Your task to perform on an android device: What's the weather going to be tomorrow? Image 0: 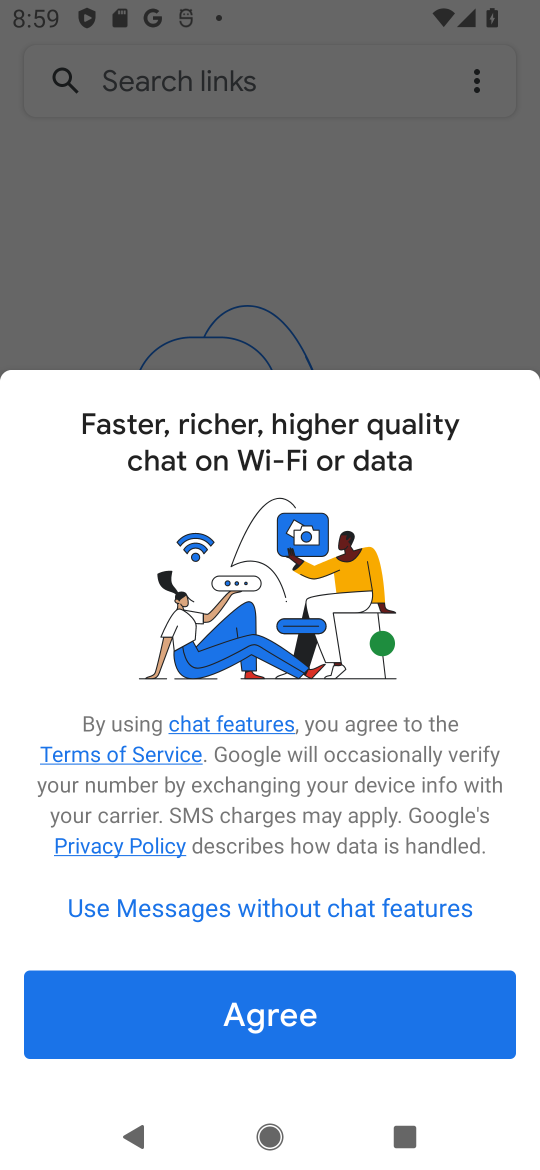
Step 0: press home button
Your task to perform on an android device: What's the weather going to be tomorrow? Image 1: 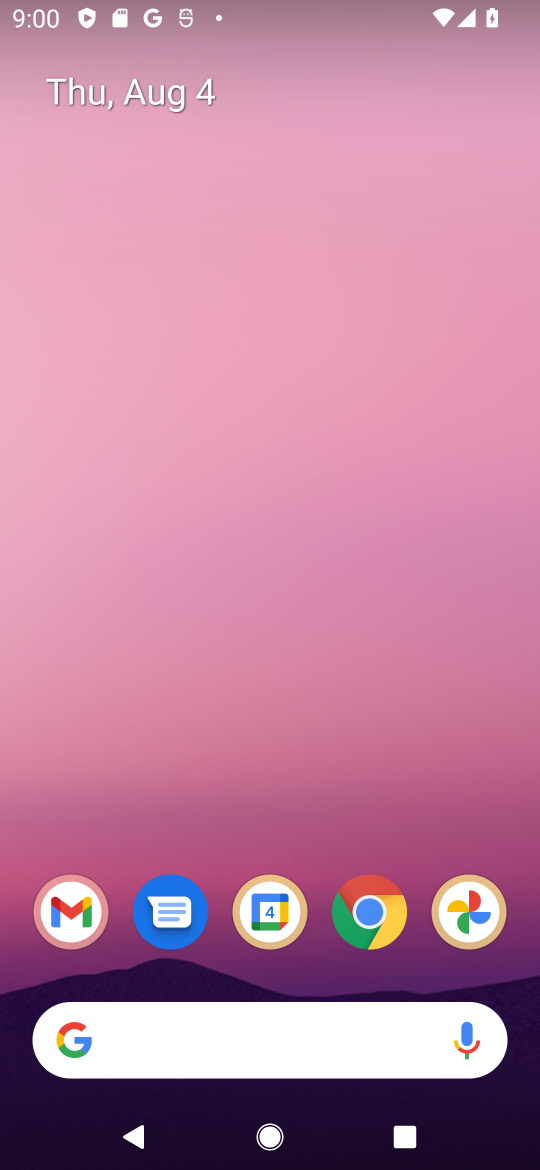
Step 1: click (385, 907)
Your task to perform on an android device: What's the weather going to be tomorrow? Image 2: 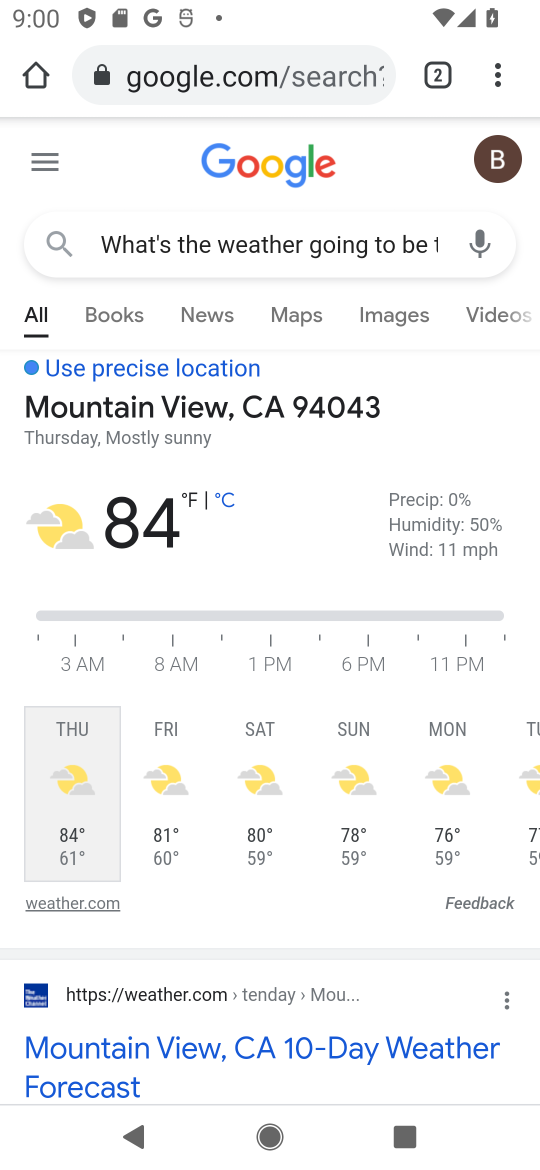
Step 2: click (290, 81)
Your task to perform on an android device: What's the weather going to be tomorrow? Image 3: 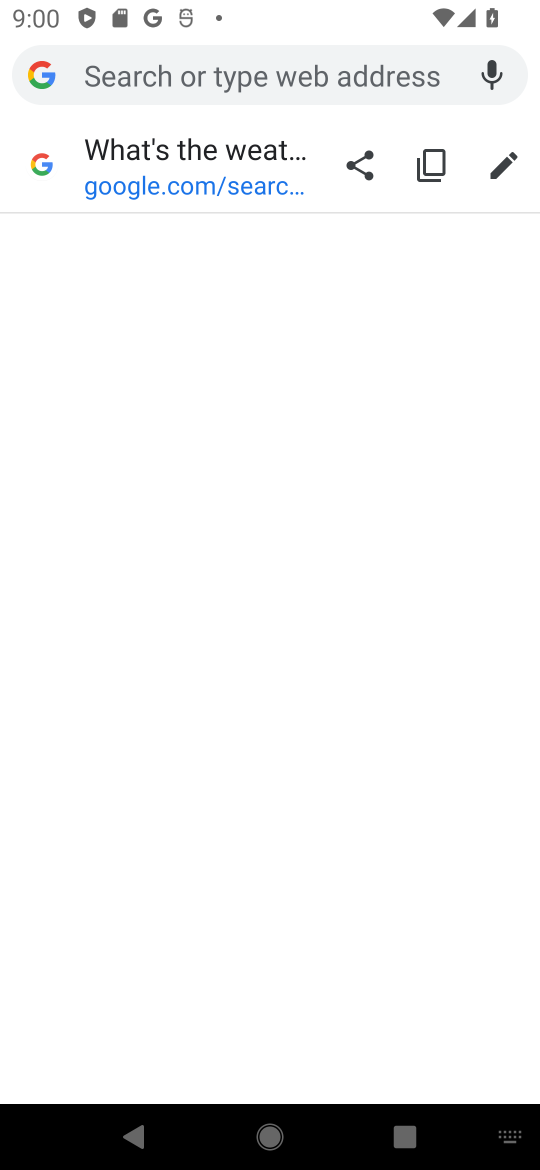
Step 3: type "What's the weather going to be tomorrow?"
Your task to perform on an android device: What's the weather going to be tomorrow? Image 4: 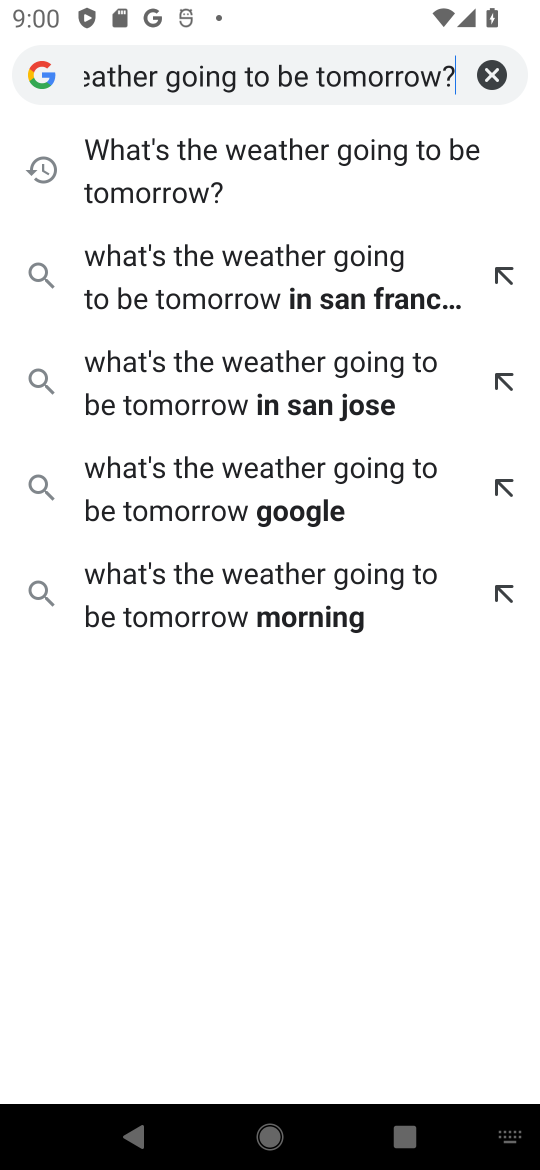
Step 4: click (470, 157)
Your task to perform on an android device: What's the weather going to be tomorrow? Image 5: 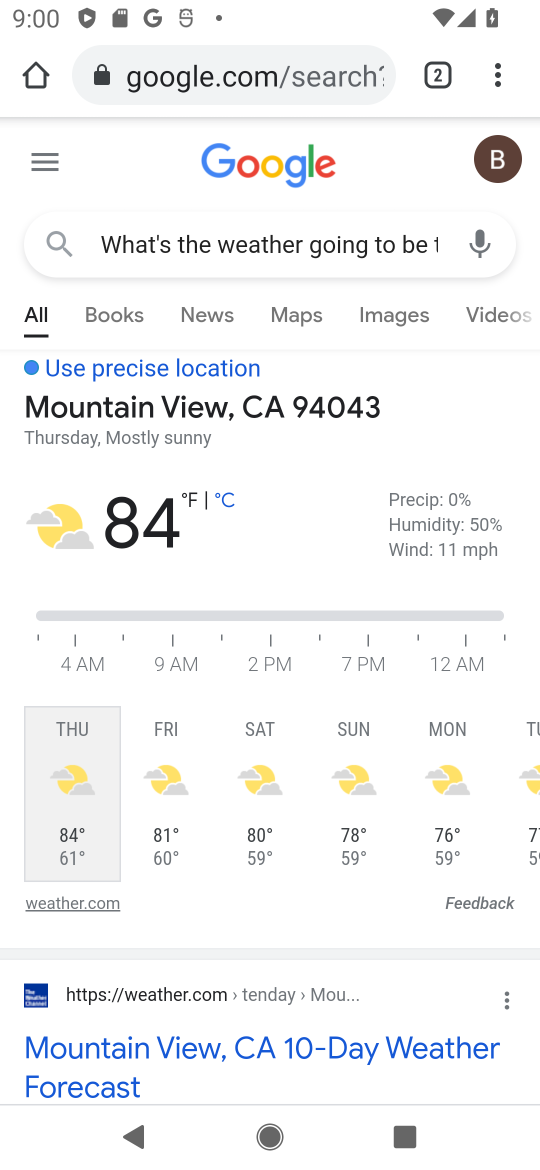
Step 5: task complete